Your task to perform on an android device: change your default location settings in chrome Image 0: 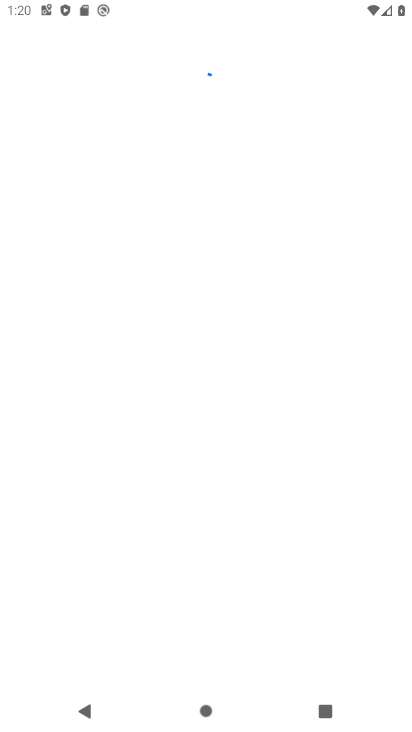
Step 0: drag from (193, 573) to (205, 5)
Your task to perform on an android device: change your default location settings in chrome Image 1: 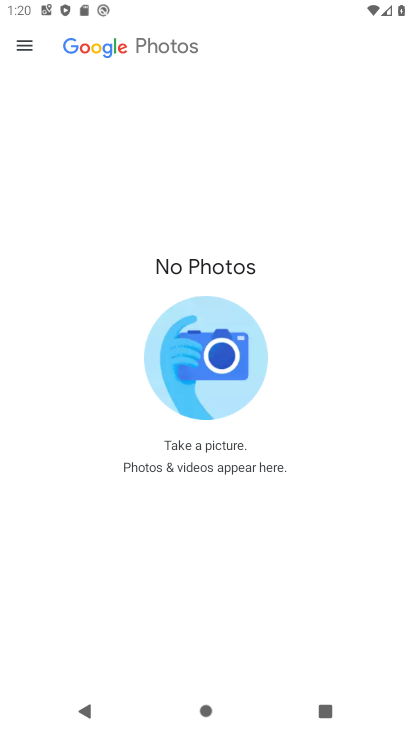
Step 1: drag from (213, 450) to (252, 55)
Your task to perform on an android device: change your default location settings in chrome Image 2: 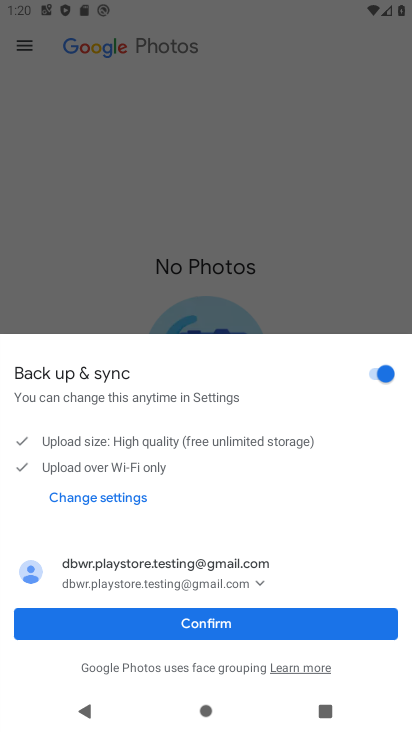
Step 2: press home button
Your task to perform on an android device: change your default location settings in chrome Image 3: 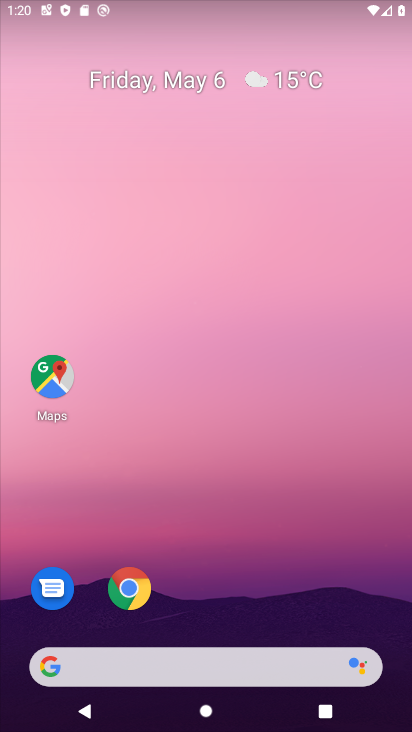
Step 3: drag from (195, 617) to (263, 40)
Your task to perform on an android device: change your default location settings in chrome Image 4: 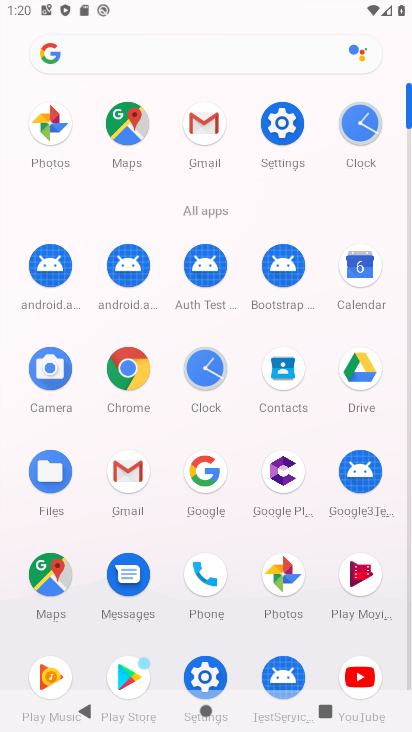
Step 4: click (129, 378)
Your task to perform on an android device: change your default location settings in chrome Image 5: 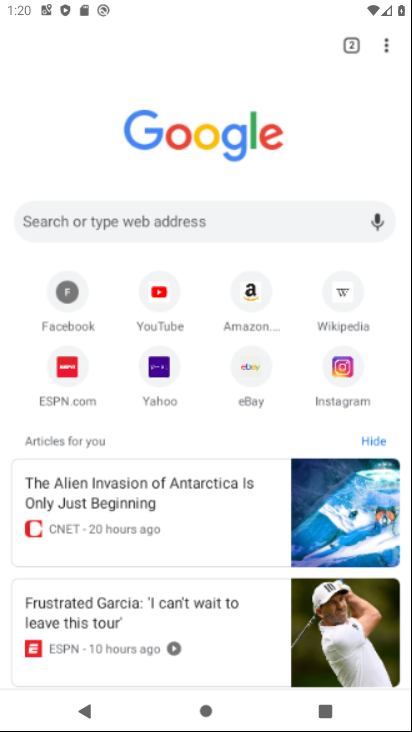
Step 5: drag from (233, 582) to (244, 223)
Your task to perform on an android device: change your default location settings in chrome Image 6: 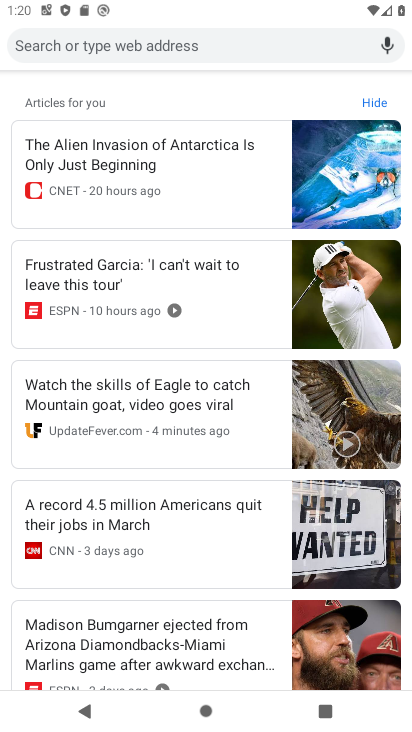
Step 6: drag from (235, 494) to (251, 225)
Your task to perform on an android device: change your default location settings in chrome Image 7: 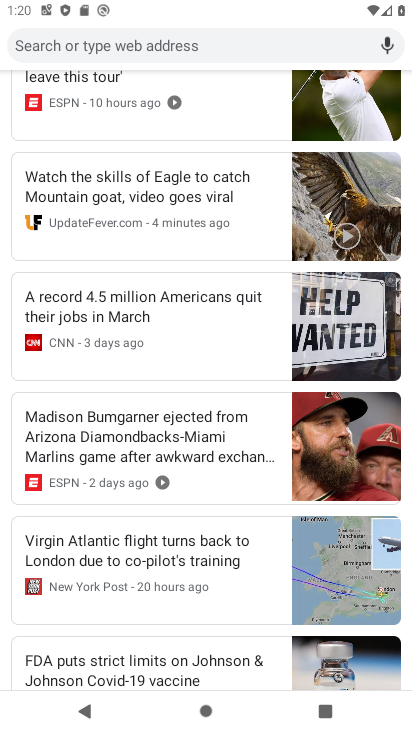
Step 7: drag from (247, 171) to (249, 724)
Your task to perform on an android device: change your default location settings in chrome Image 8: 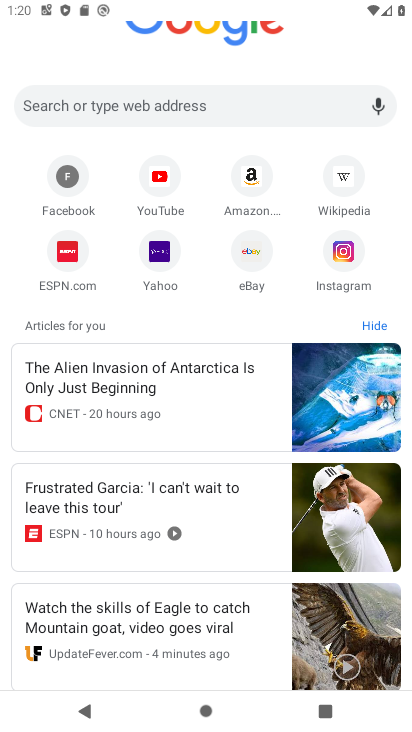
Step 8: drag from (161, 128) to (205, 516)
Your task to perform on an android device: change your default location settings in chrome Image 9: 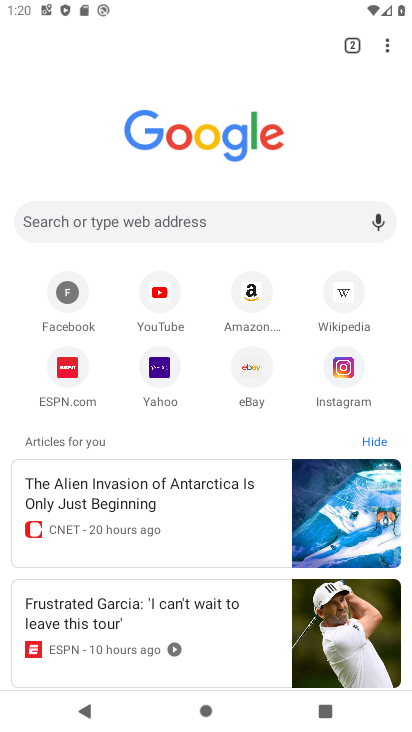
Step 9: click (386, 50)
Your task to perform on an android device: change your default location settings in chrome Image 10: 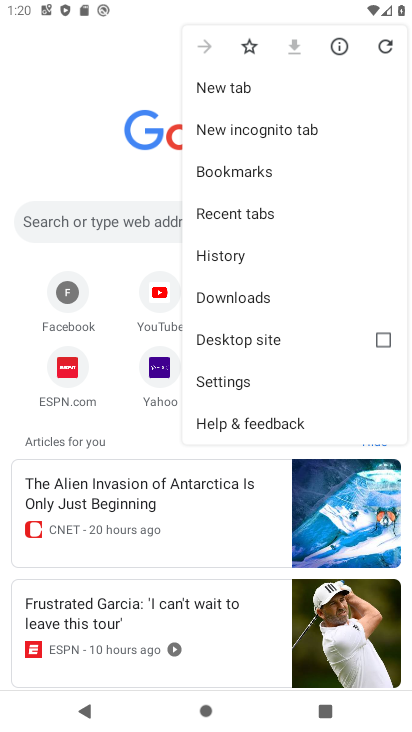
Step 10: click (247, 384)
Your task to perform on an android device: change your default location settings in chrome Image 11: 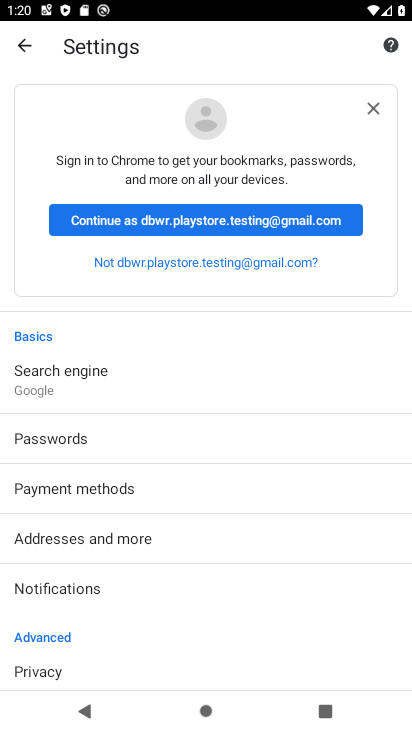
Step 11: drag from (123, 614) to (155, 278)
Your task to perform on an android device: change your default location settings in chrome Image 12: 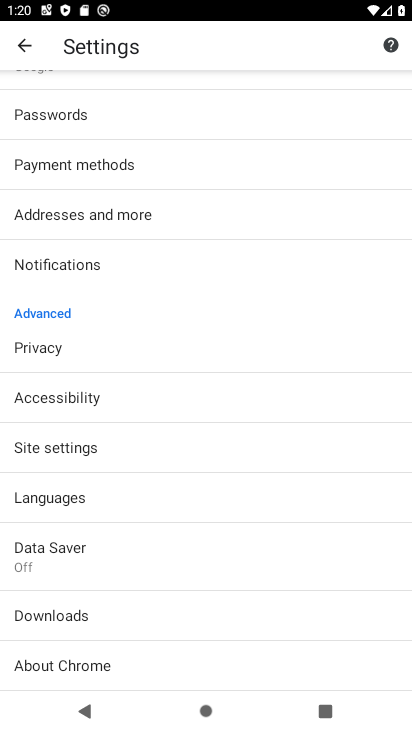
Step 12: click (81, 430)
Your task to perform on an android device: change your default location settings in chrome Image 13: 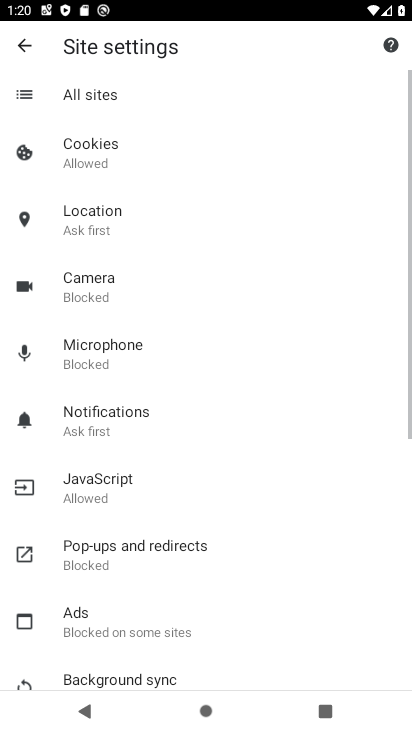
Step 13: click (144, 227)
Your task to perform on an android device: change your default location settings in chrome Image 14: 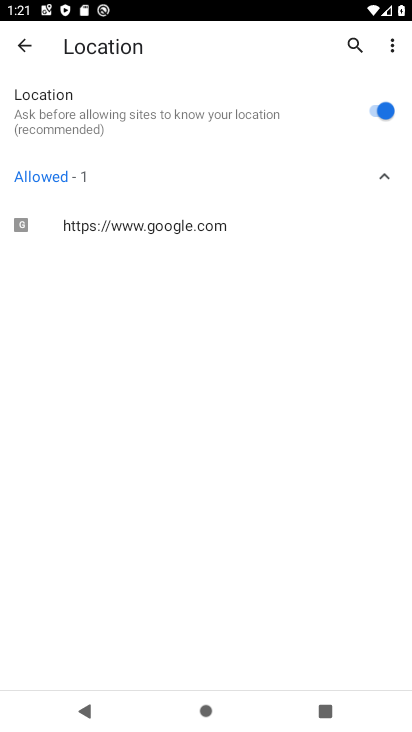
Step 14: click (376, 107)
Your task to perform on an android device: change your default location settings in chrome Image 15: 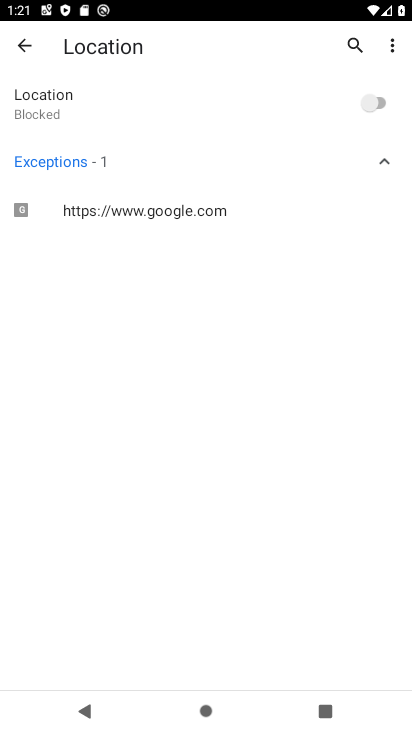
Step 15: task complete